Your task to perform on an android device: Search for energizer triple a on newegg.com, select the first entry, add it to the cart, then select checkout. Image 0: 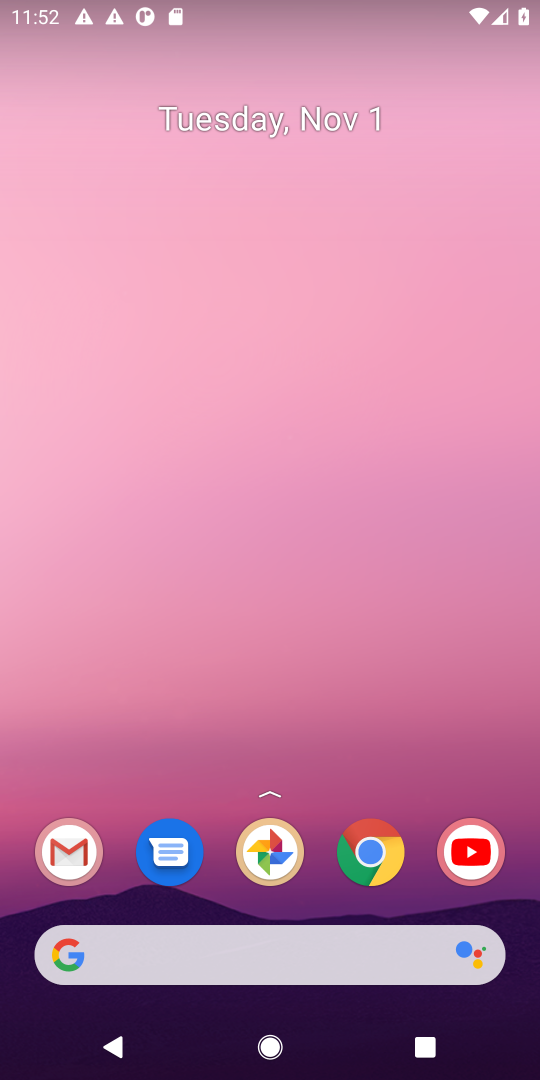
Step 0: press home button
Your task to perform on an android device: Search for energizer triple a on newegg.com, select the first entry, add it to the cart, then select checkout. Image 1: 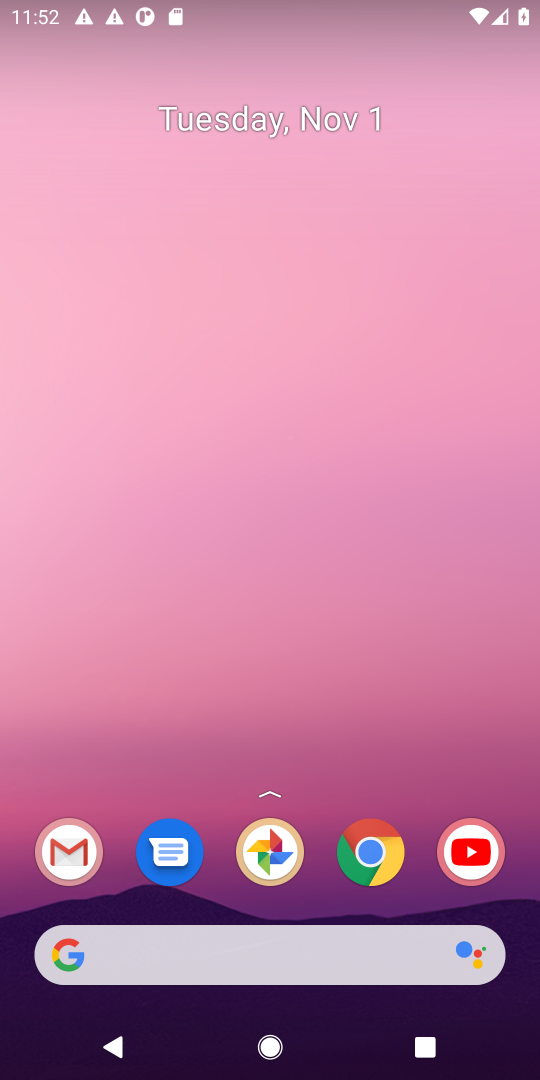
Step 1: click (67, 950)
Your task to perform on an android device: Search for energizer triple a on newegg.com, select the first entry, add it to the cart, then select checkout. Image 2: 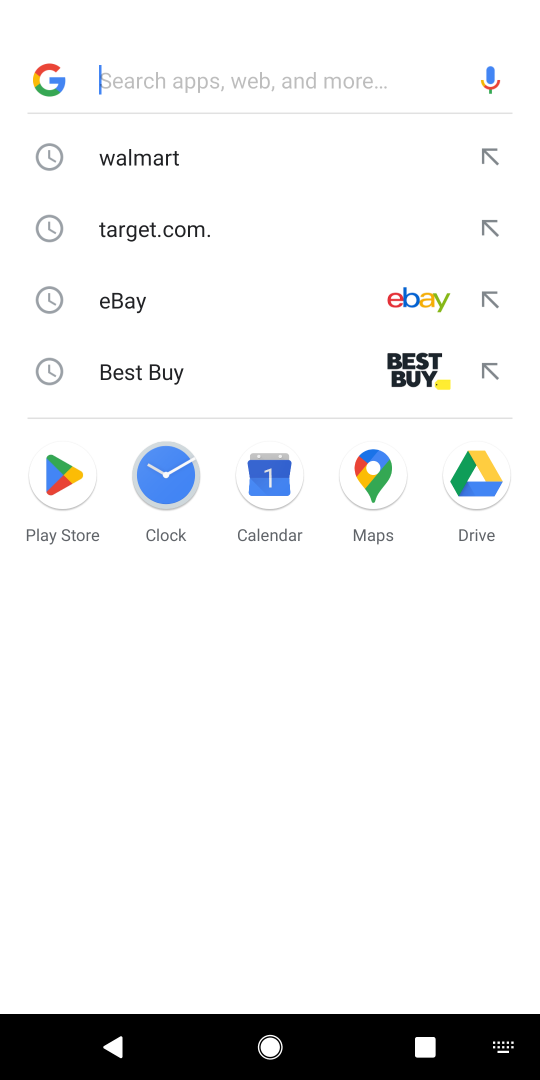
Step 2: type "newegg.com"
Your task to perform on an android device: Search for energizer triple a on newegg.com, select the first entry, add it to the cart, then select checkout. Image 3: 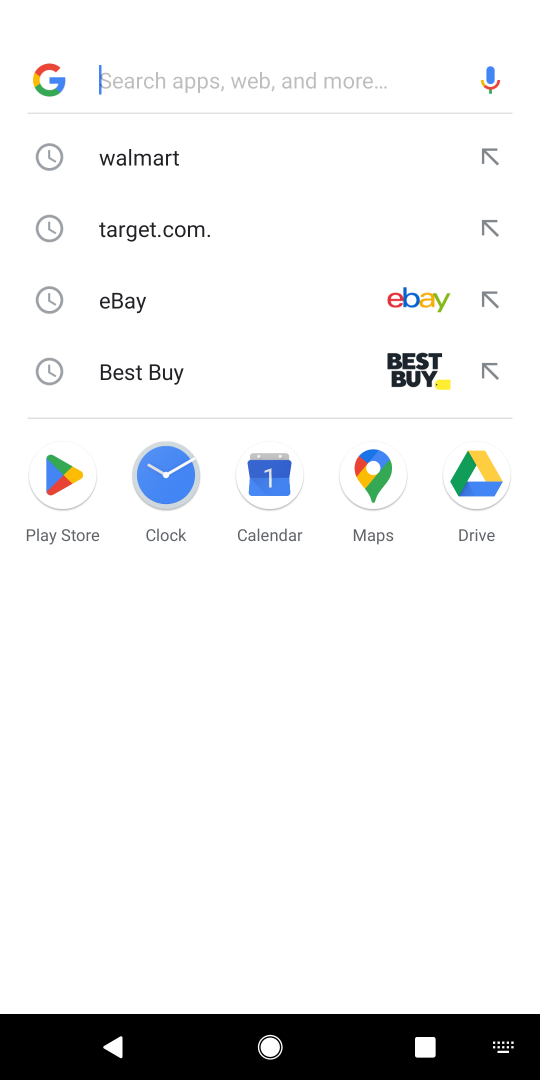
Step 3: click (115, 72)
Your task to perform on an android device: Search for energizer triple a on newegg.com, select the first entry, add it to the cart, then select checkout. Image 4: 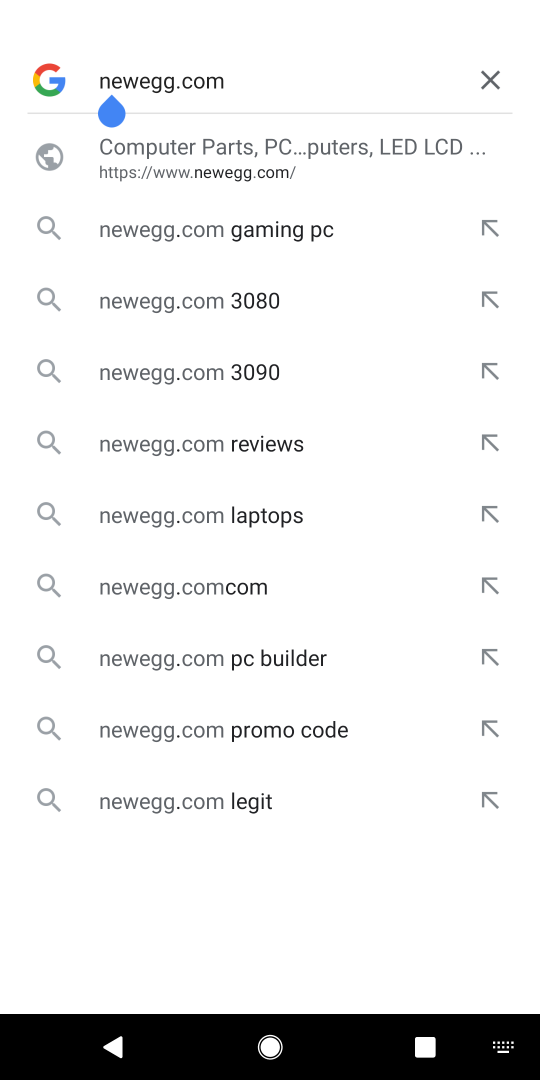
Step 4: press enter
Your task to perform on an android device: Search for energizer triple a on newegg.com, select the first entry, add it to the cart, then select checkout. Image 5: 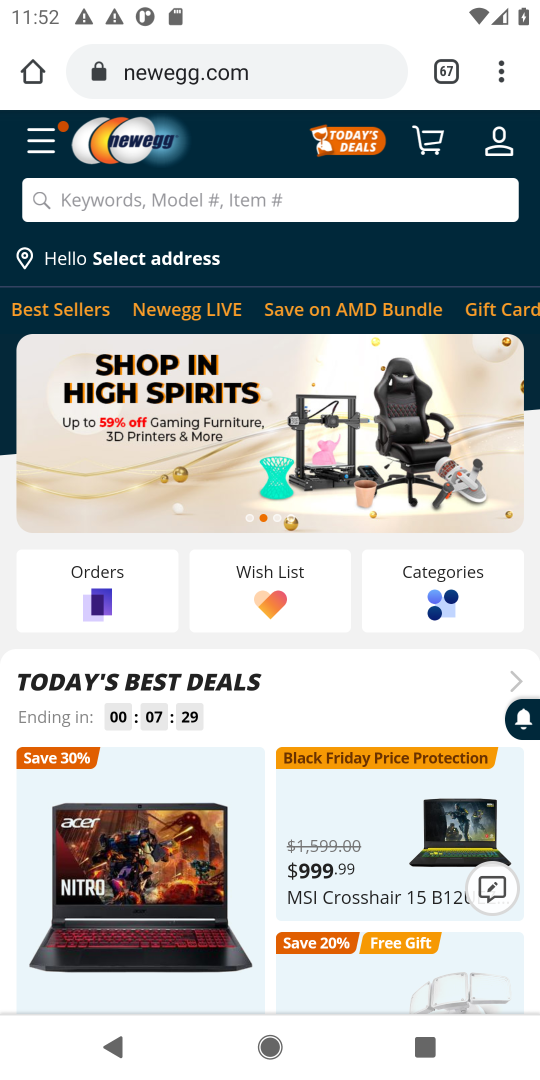
Step 5: click (184, 202)
Your task to perform on an android device: Search for energizer triple a on newegg.com, select the first entry, add it to the cart, then select checkout. Image 6: 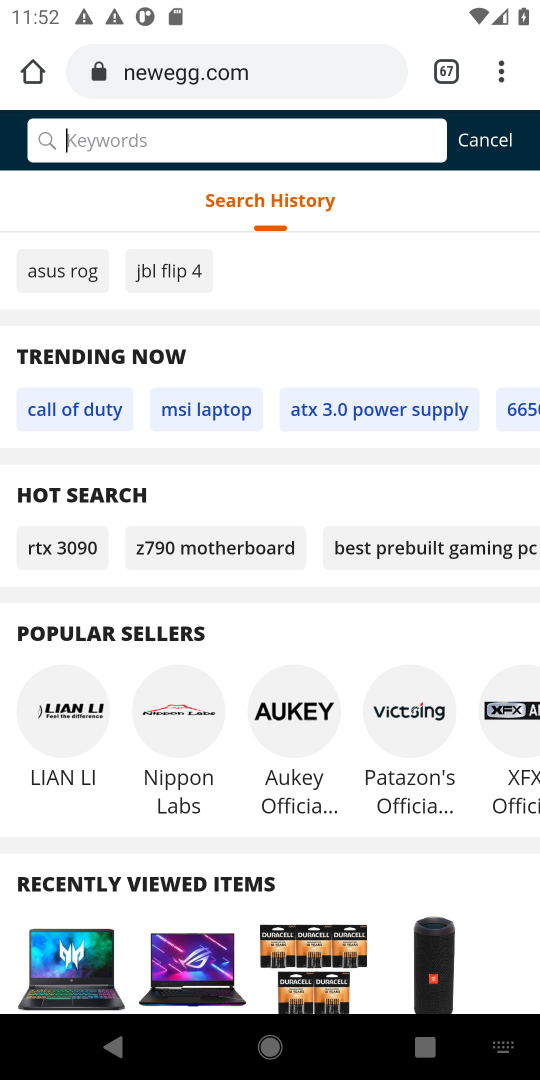
Step 6: type "energizer triple a"
Your task to perform on an android device: Search for energizer triple a on newegg.com, select the first entry, add it to the cart, then select checkout. Image 7: 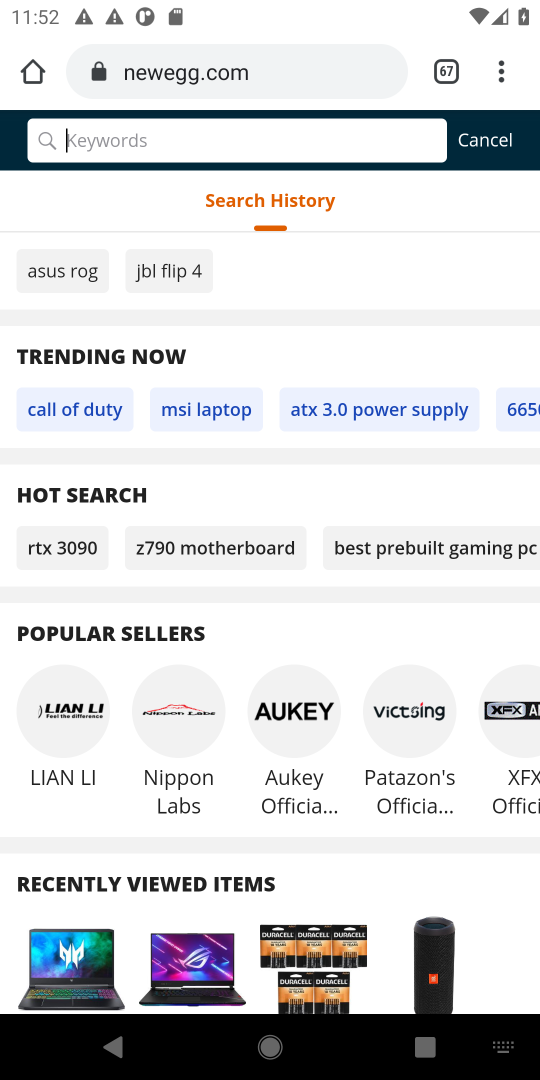
Step 7: click (80, 139)
Your task to perform on an android device: Search for energizer triple a on newegg.com, select the first entry, add it to the cart, then select checkout. Image 8: 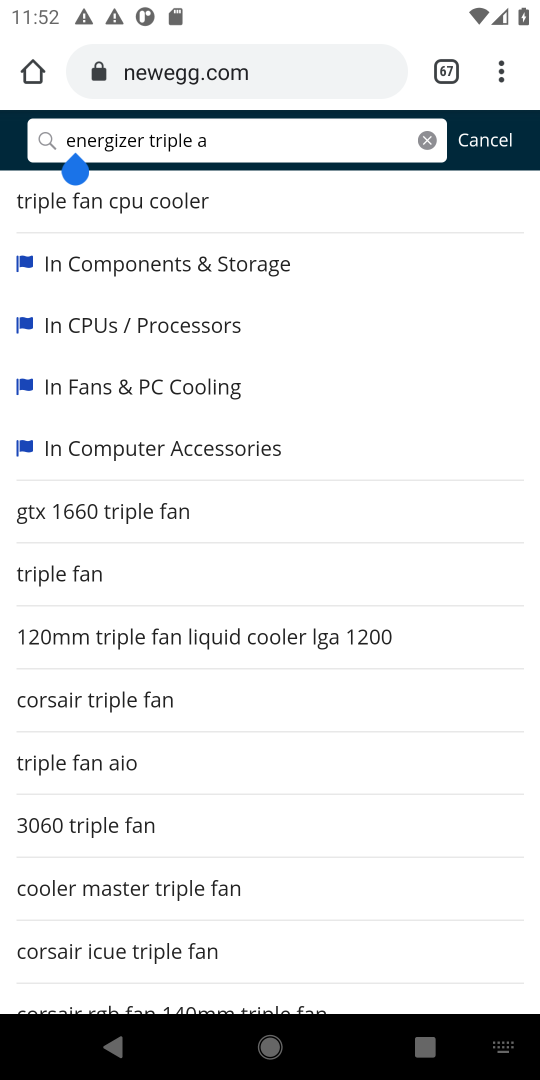
Step 8: press enter
Your task to perform on an android device: Search for energizer triple a on newegg.com, select the first entry, add it to the cart, then select checkout. Image 9: 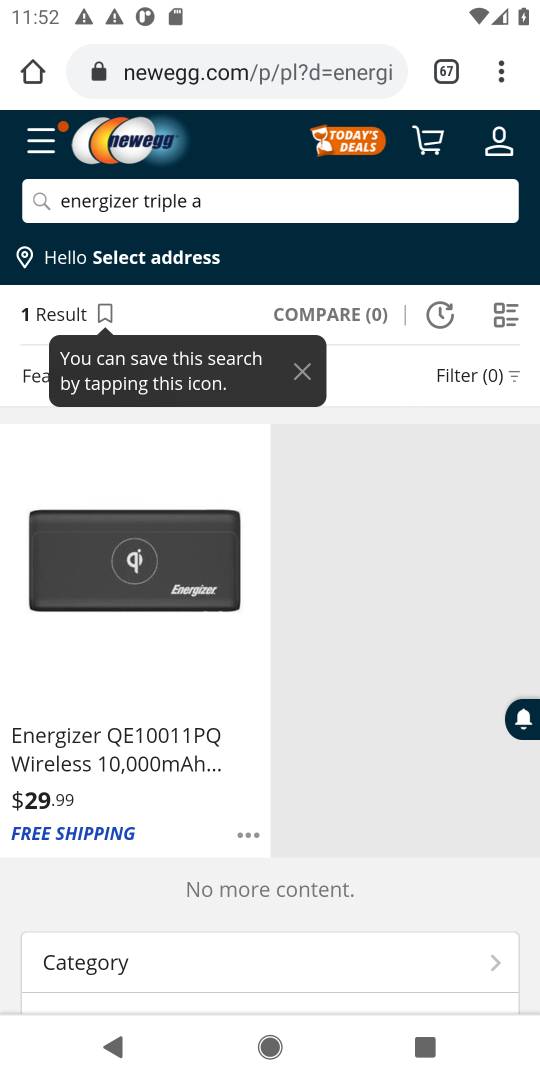
Step 9: task complete